Your task to perform on an android device: Go to settings Image 0: 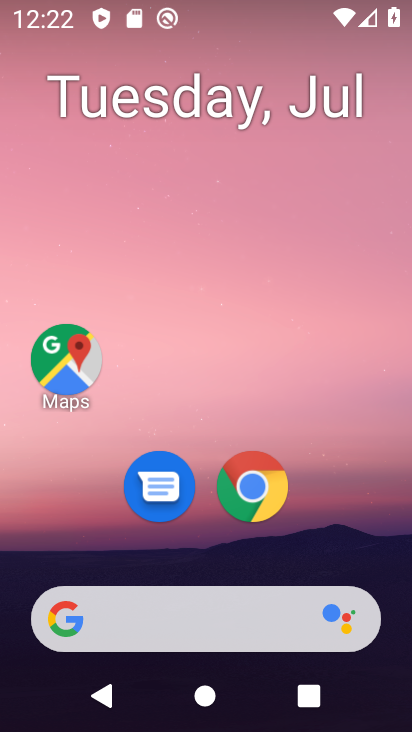
Step 0: drag from (337, 539) to (375, 97)
Your task to perform on an android device: Go to settings Image 1: 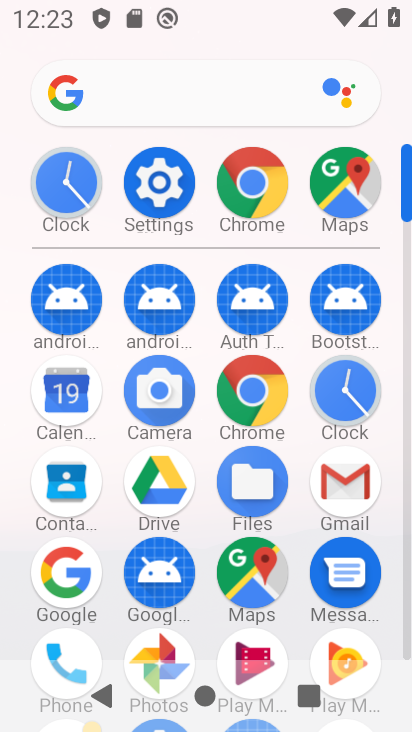
Step 1: click (169, 202)
Your task to perform on an android device: Go to settings Image 2: 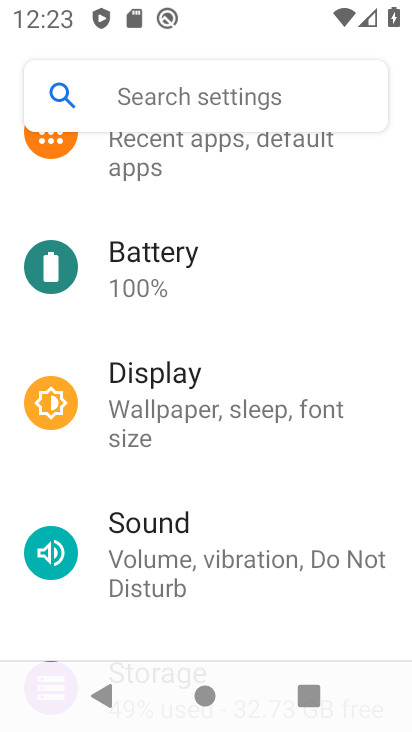
Step 2: task complete